Your task to perform on an android device: turn pop-ups on in chrome Image 0: 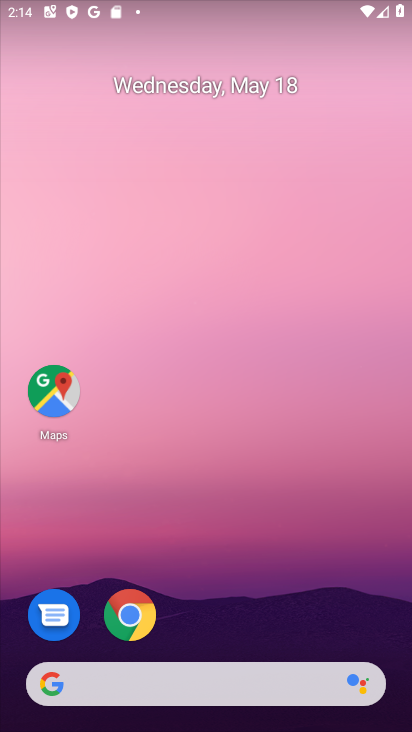
Step 0: click (138, 610)
Your task to perform on an android device: turn pop-ups on in chrome Image 1: 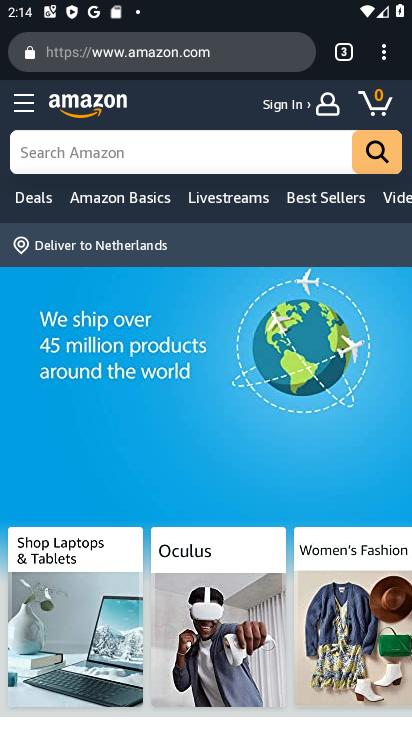
Step 1: click (384, 60)
Your task to perform on an android device: turn pop-ups on in chrome Image 2: 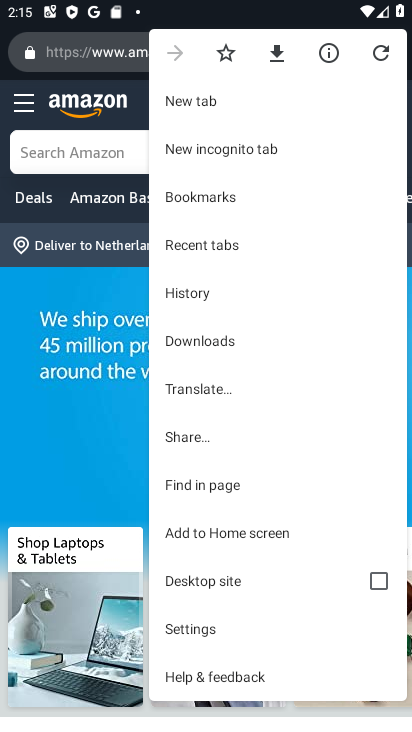
Step 2: click (242, 631)
Your task to perform on an android device: turn pop-ups on in chrome Image 3: 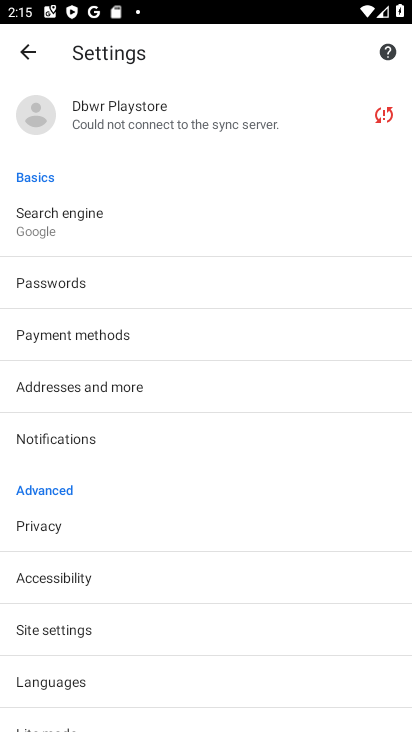
Step 3: click (242, 631)
Your task to perform on an android device: turn pop-ups on in chrome Image 4: 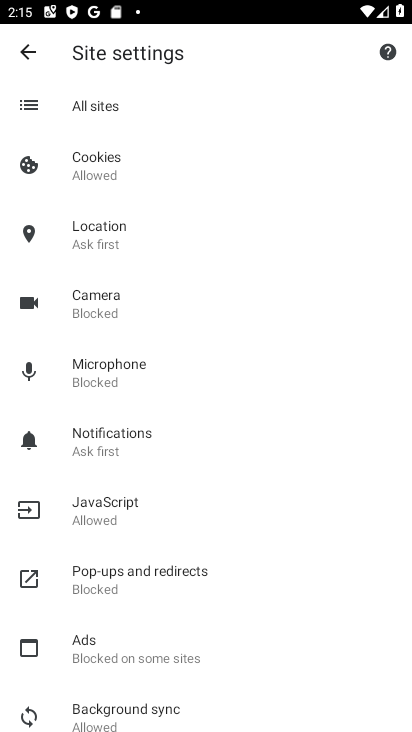
Step 4: click (242, 583)
Your task to perform on an android device: turn pop-ups on in chrome Image 5: 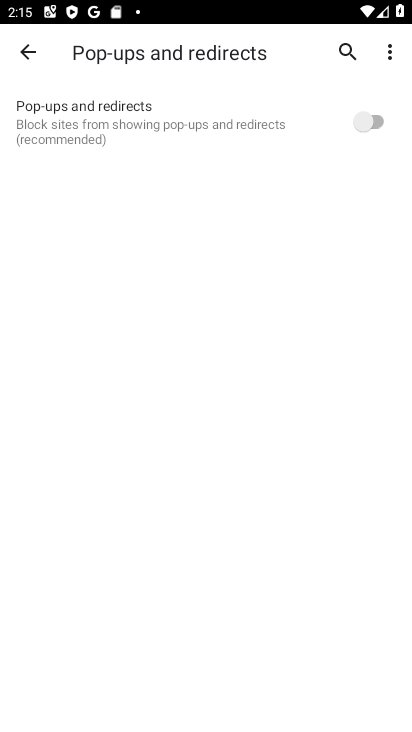
Step 5: click (371, 113)
Your task to perform on an android device: turn pop-ups on in chrome Image 6: 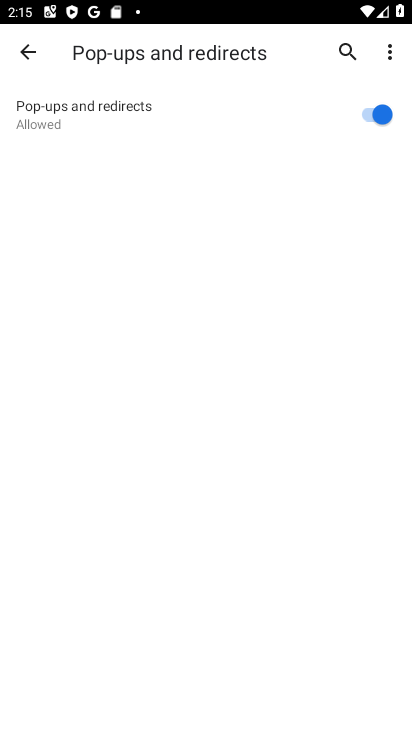
Step 6: task complete